Your task to perform on an android device: Open Chrome and go to settings Image 0: 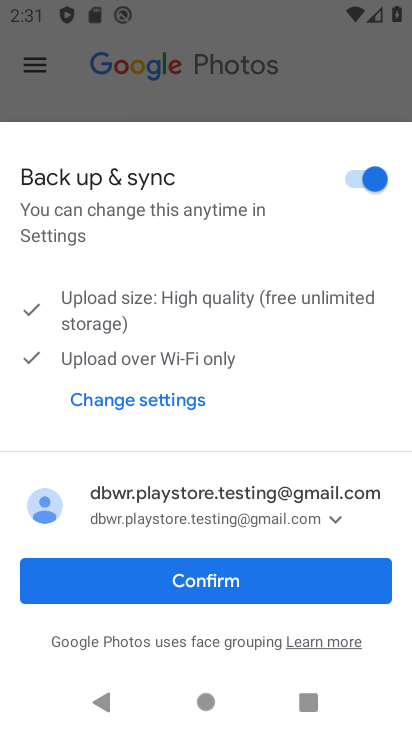
Step 0: drag from (217, 576) to (238, 187)
Your task to perform on an android device: Open Chrome and go to settings Image 1: 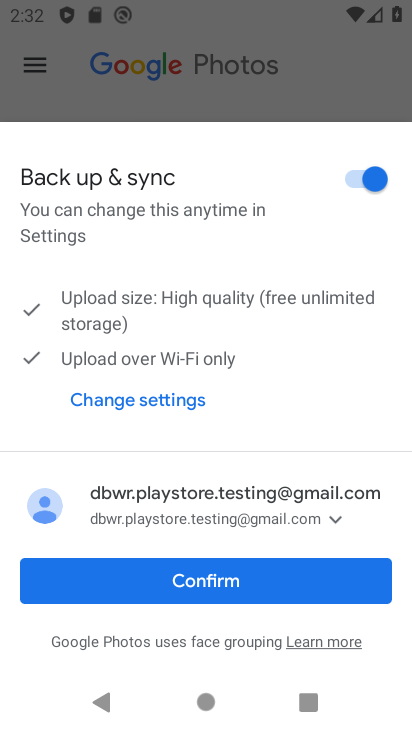
Step 1: click (161, 201)
Your task to perform on an android device: Open Chrome and go to settings Image 2: 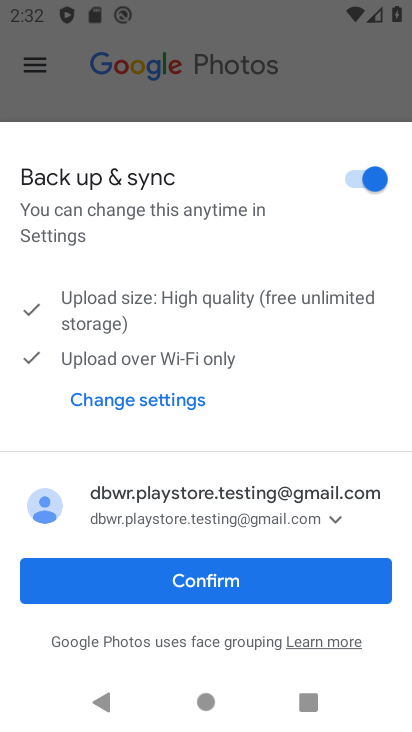
Step 2: click (153, 194)
Your task to perform on an android device: Open Chrome and go to settings Image 3: 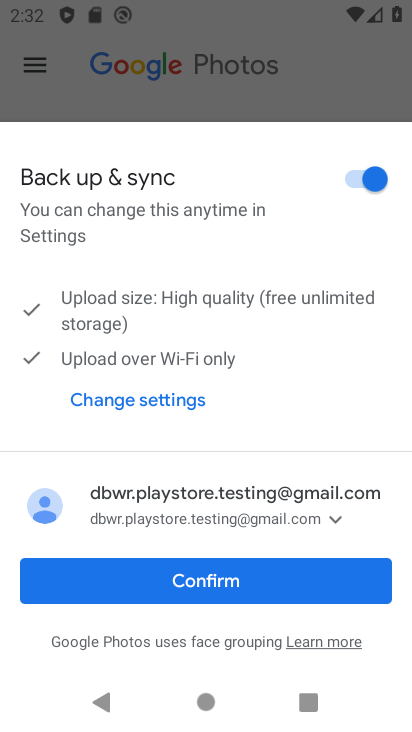
Step 3: click (153, 194)
Your task to perform on an android device: Open Chrome and go to settings Image 4: 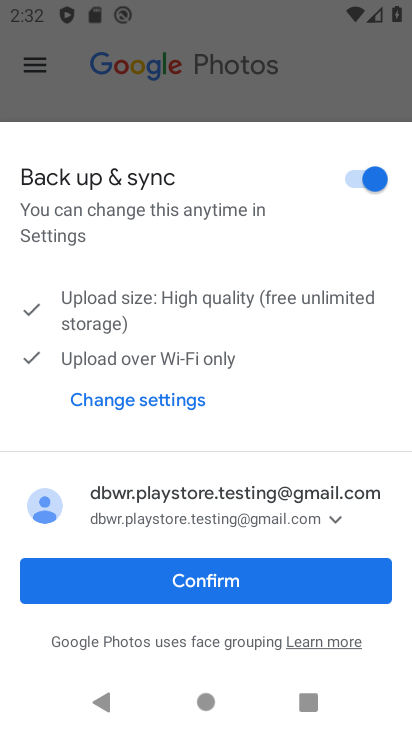
Step 4: press home button
Your task to perform on an android device: Open Chrome and go to settings Image 5: 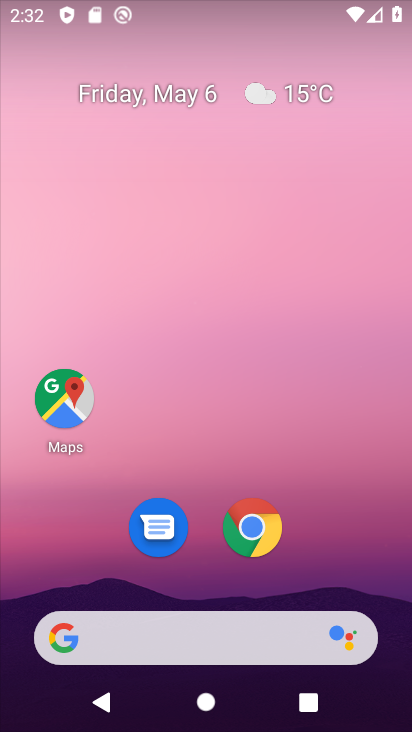
Step 5: click (245, 528)
Your task to perform on an android device: Open Chrome and go to settings Image 6: 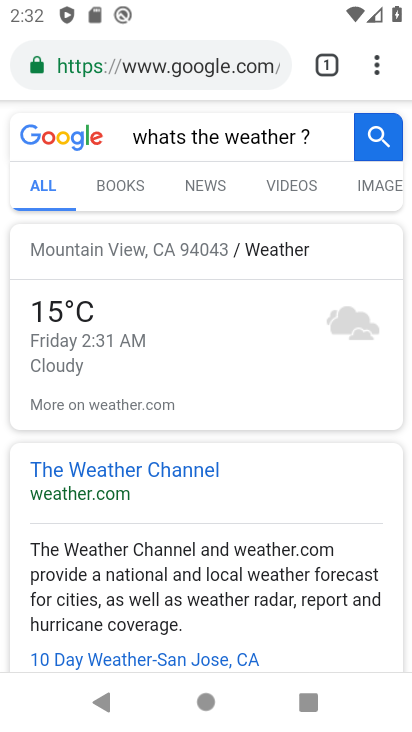
Step 6: click (380, 63)
Your task to perform on an android device: Open Chrome and go to settings Image 7: 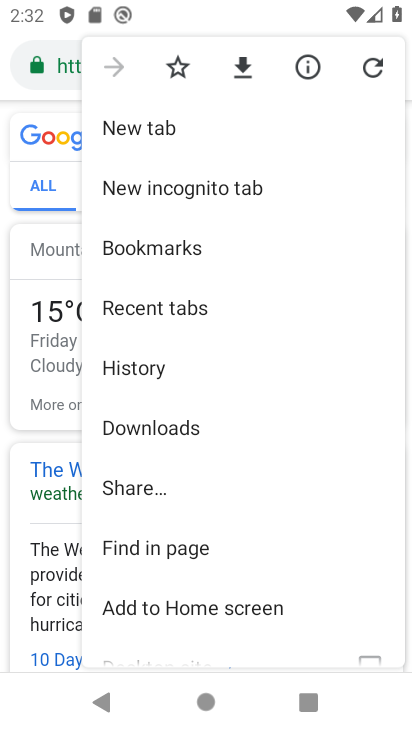
Step 7: drag from (205, 568) to (185, 186)
Your task to perform on an android device: Open Chrome and go to settings Image 8: 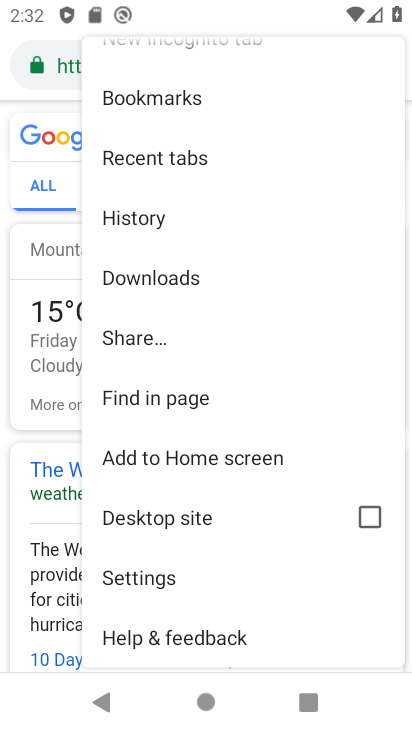
Step 8: click (148, 581)
Your task to perform on an android device: Open Chrome and go to settings Image 9: 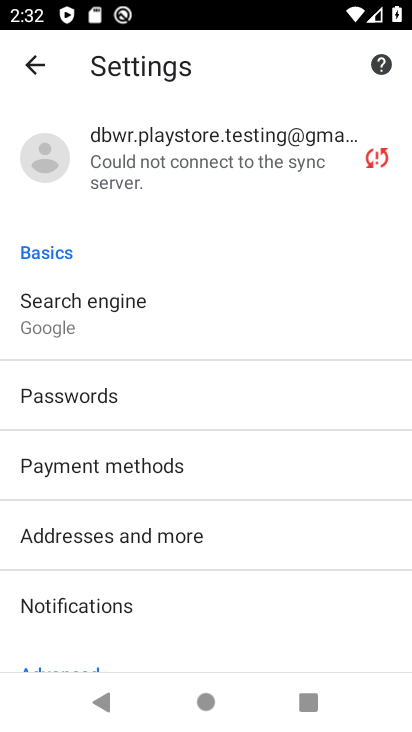
Step 9: task complete